Your task to perform on an android device: open chrome privacy settings Image 0: 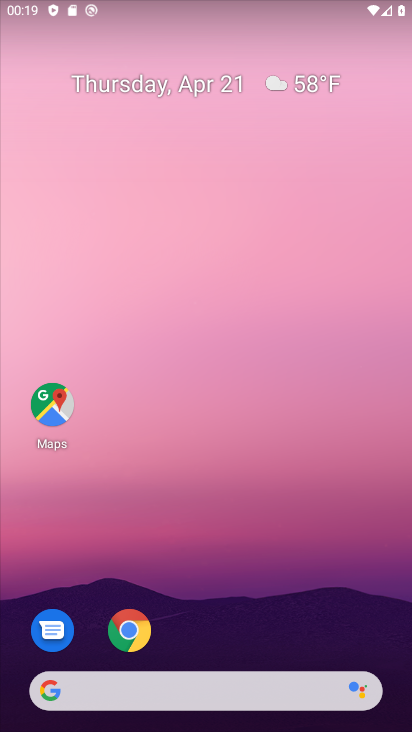
Step 0: drag from (177, 690) to (334, 82)
Your task to perform on an android device: open chrome privacy settings Image 1: 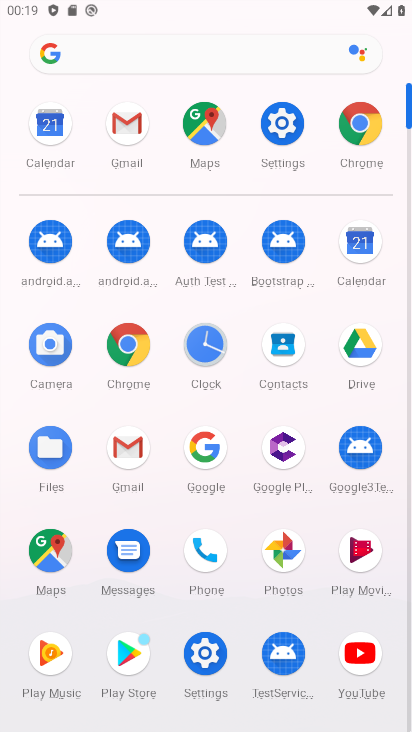
Step 1: click (355, 122)
Your task to perform on an android device: open chrome privacy settings Image 2: 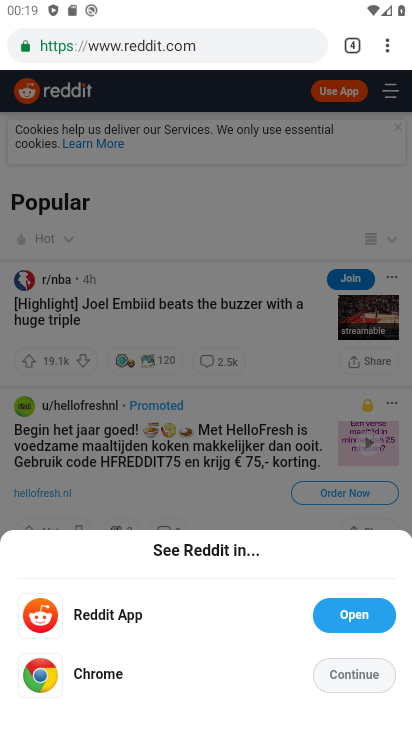
Step 2: click (388, 50)
Your task to perform on an android device: open chrome privacy settings Image 3: 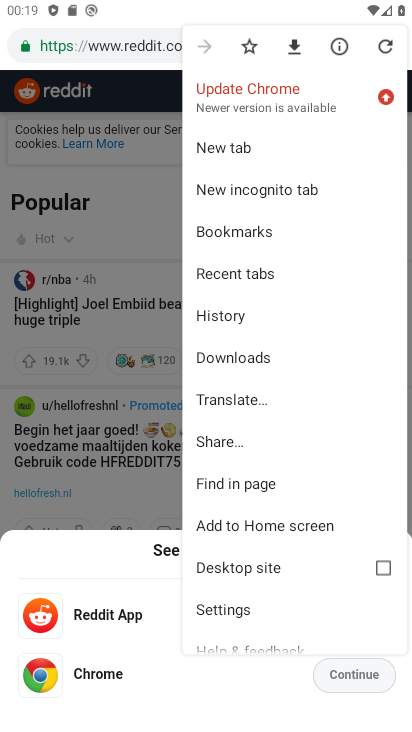
Step 3: click (223, 611)
Your task to perform on an android device: open chrome privacy settings Image 4: 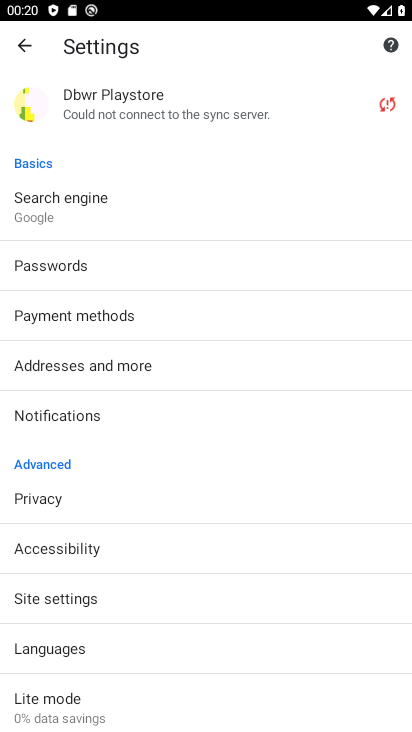
Step 4: click (18, 493)
Your task to perform on an android device: open chrome privacy settings Image 5: 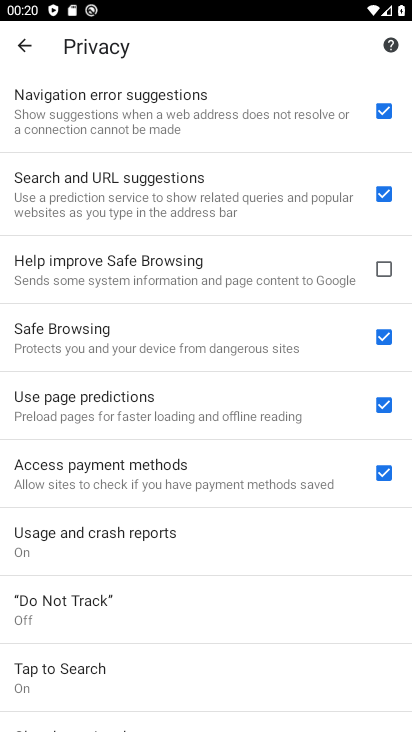
Step 5: task complete